Your task to perform on an android device: Open maps Image 0: 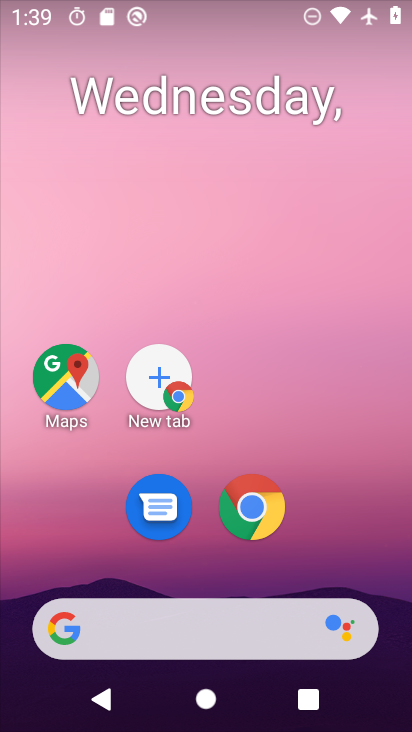
Step 0: click (59, 358)
Your task to perform on an android device: Open maps Image 1: 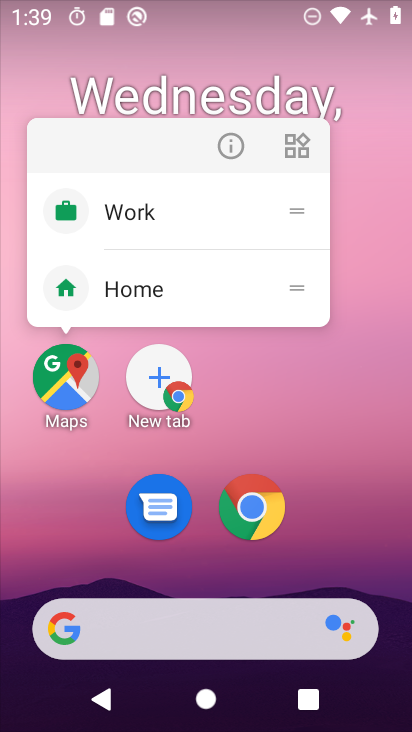
Step 1: click (59, 358)
Your task to perform on an android device: Open maps Image 2: 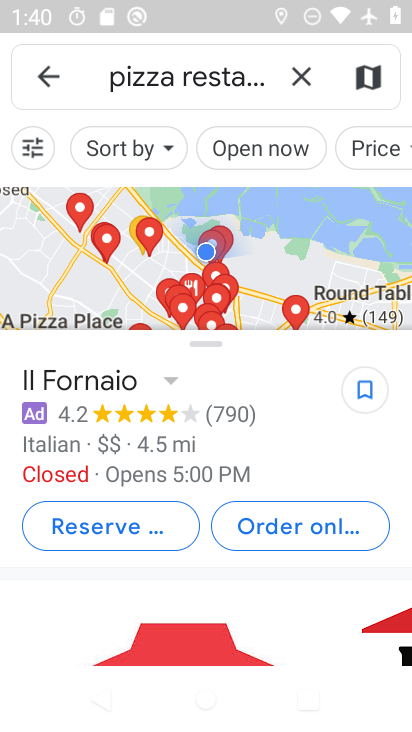
Step 2: task complete